Your task to perform on an android device: Open Android settings Image 0: 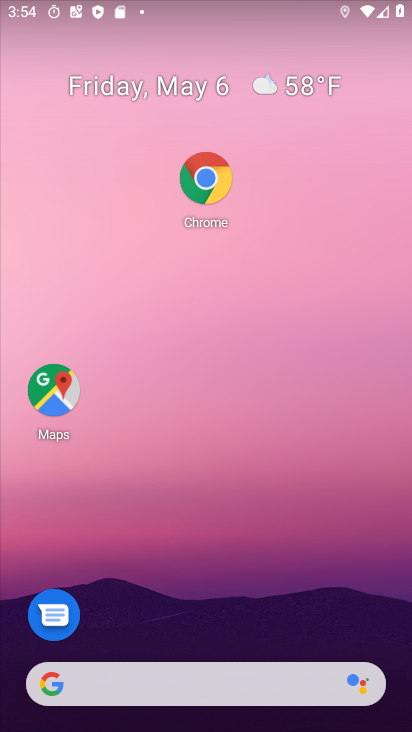
Step 0: drag from (295, 566) to (130, 66)
Your task to perform on an android device: Open Android settings Image 1: 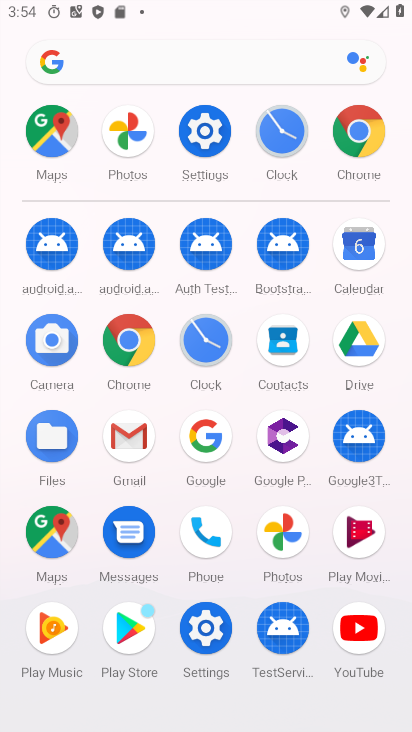
Step 1: click (196, 125)
Your task to perform on an android device: Open Android settings Image 2: 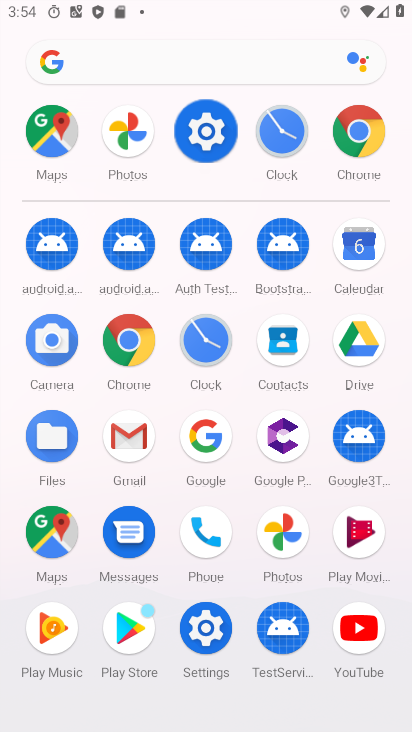
Step 2: click (197, 126)
Your task to perform on an android device: Open Android settings Image 3: 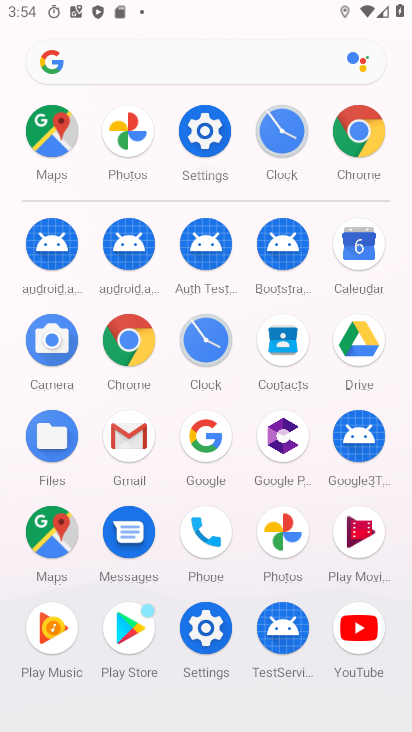
Step 3: click (198, 126)
Your task to perform on an android device: Open Android settings Image 4: 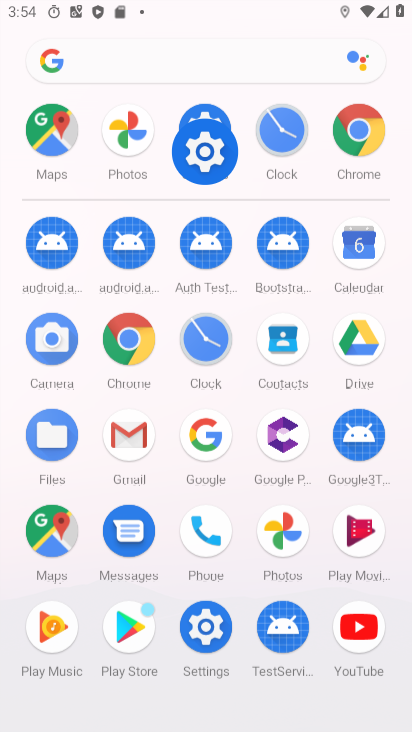
Step 4: click (198, 126)
Your task to perform on an android device: Open Android settings Image 5: 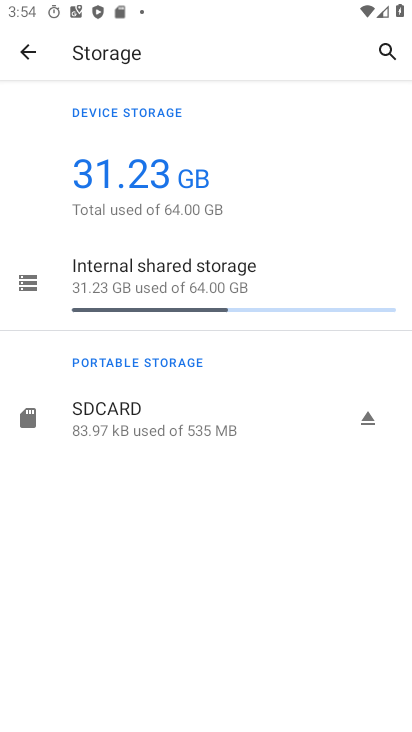
Step 5: click (26, 54)
Your task to perform on an android device: Open Android settings Image 6: 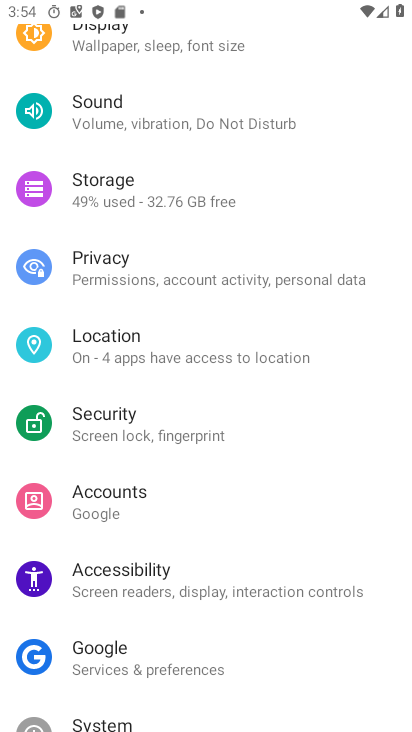
Step 6: drag from (184, 530) to (59, 71)
Your task to perform on an android device: Open Android settings Image 7: 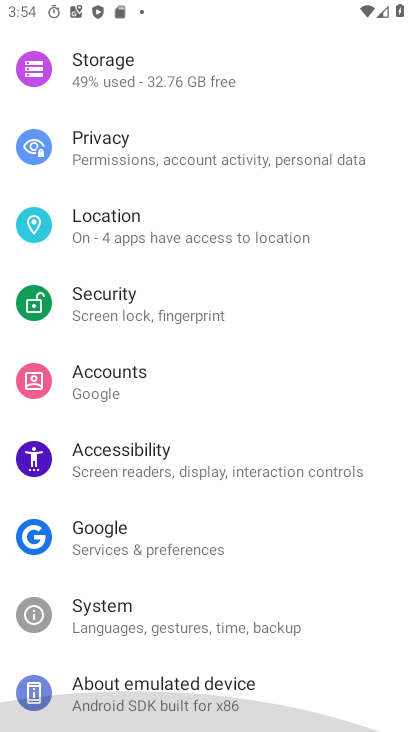
Step 7: drag from (177, 403) to (154, 161)
Your task to perform on an android device: Open Android settings Image 8: 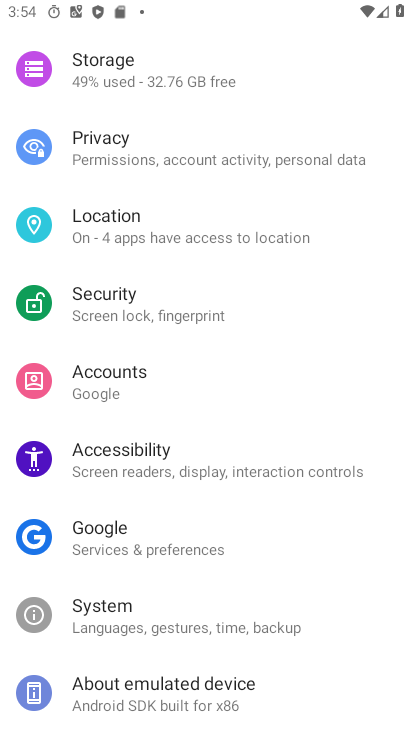
Step 8: click (133, 686)
Your task to perform on an android device: Open Android settings Image 9: 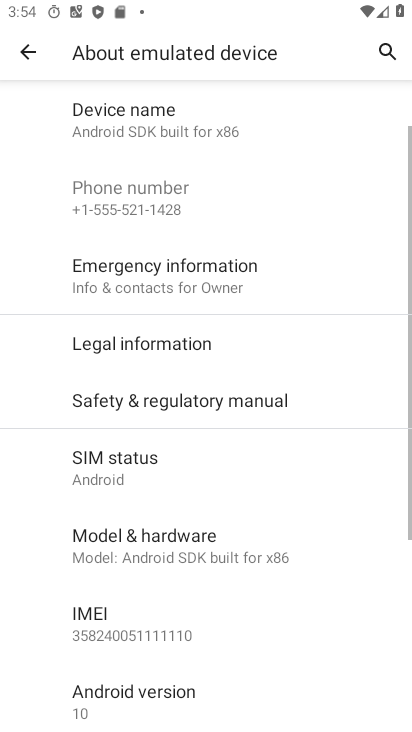
Step 9: task complete